Your task to perform on an android device: toggle show notifications on the lock screen Image 0: 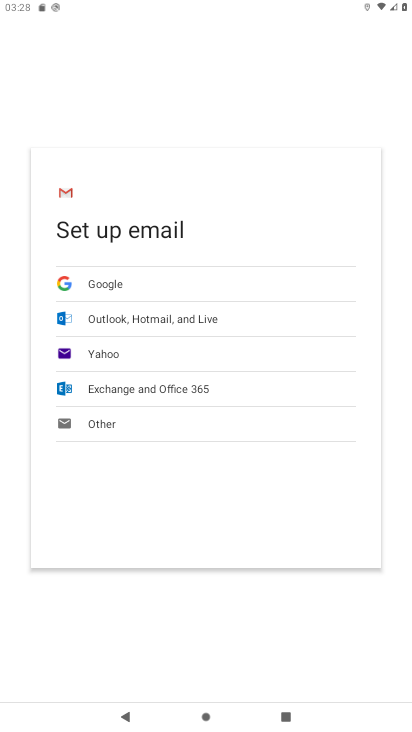
Step 0: press home button
Your task to perform on an android device: toggle show notifications on the lock screen Image 1: 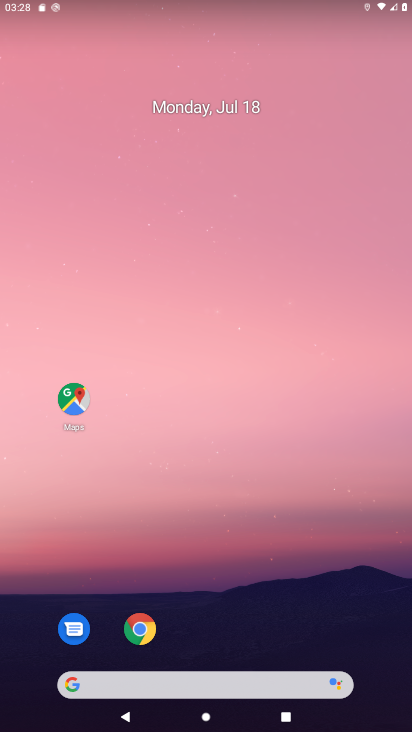
Step 1: drag from (361, 625) to (362, 86)
Your task to perform on an android device: toggle show notifications on the lock screen Image 2: 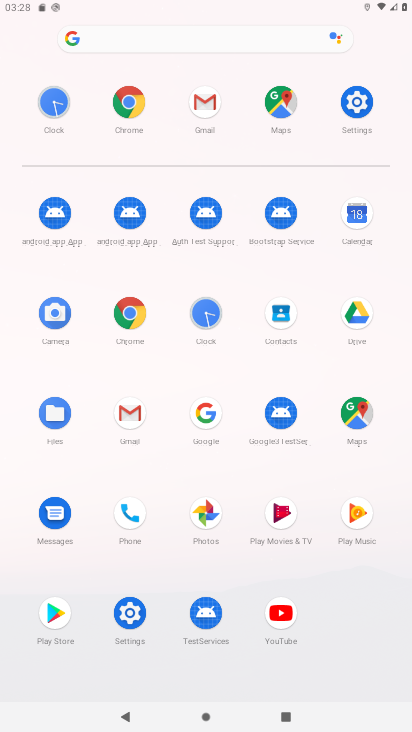
Step 2: click (365, 112)
Your task to perform on an android device: toggle show notifications on the lock screen Image 3: 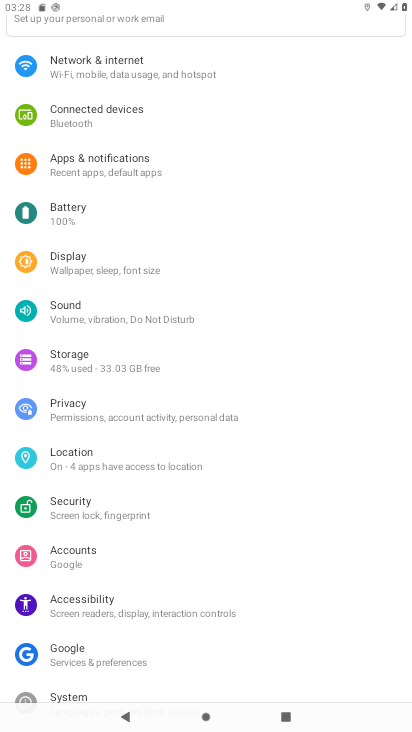
Step 3: drag from (337, 269) to (325, 352)
Your task to perform on an android device: toggle show notifications on the lock screen Image 4: 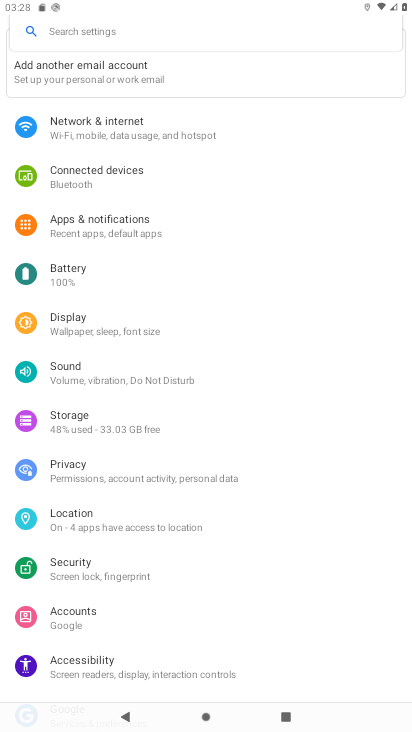
Step 4: drag from (310, 192) to (316, 278)
Your task to perform on an android device: toggle show notifications on the lock screen Image 5: 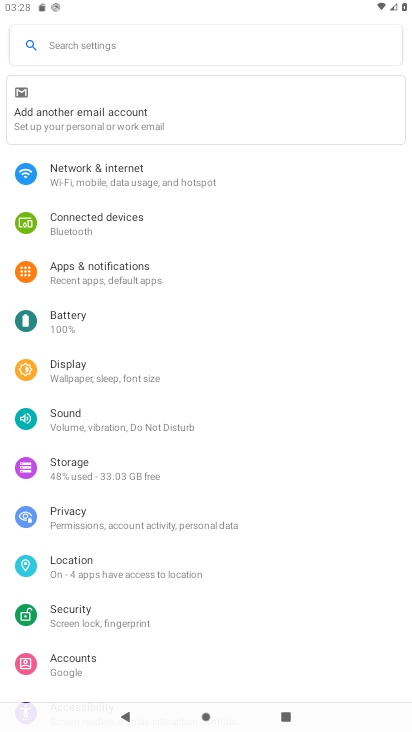
Step 5: click (218, 283)
Your task to perform on an android device: toggle show notifications on the lock screen Image 6: 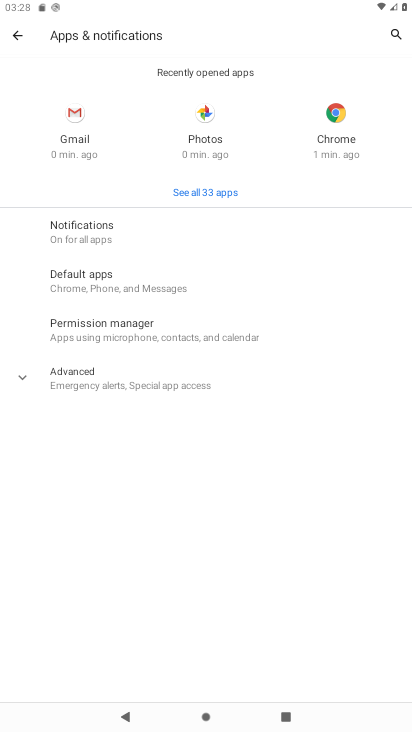
Step 6: click (151, 233)
Your task to perform on an android device: toggle show notifications on the lock screen Image 7: 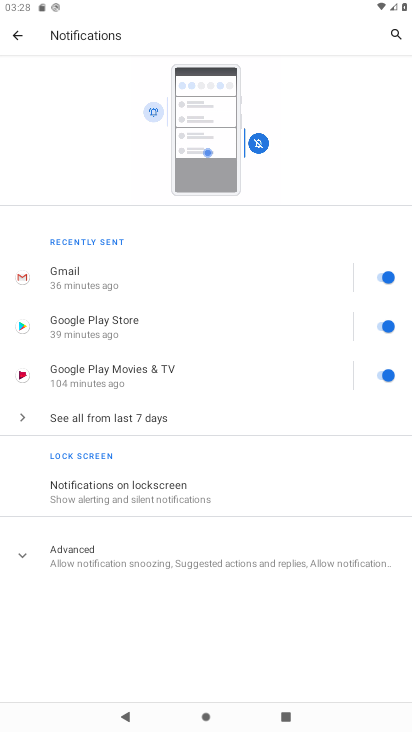
Step 7: drag from (257, 400) to (258, 315)
Your task to perform on an android device: toggle show notifications on the lock screen Image 8: 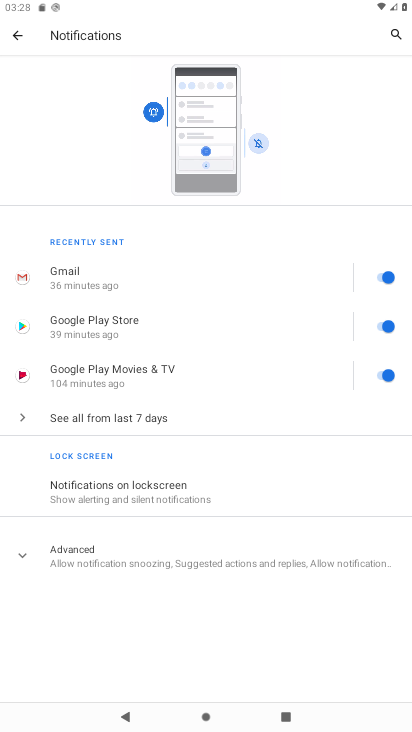
Step 8: click (255, 491)
Your task to perform on an android device: toggle show notifications on the lock screen Image 9: 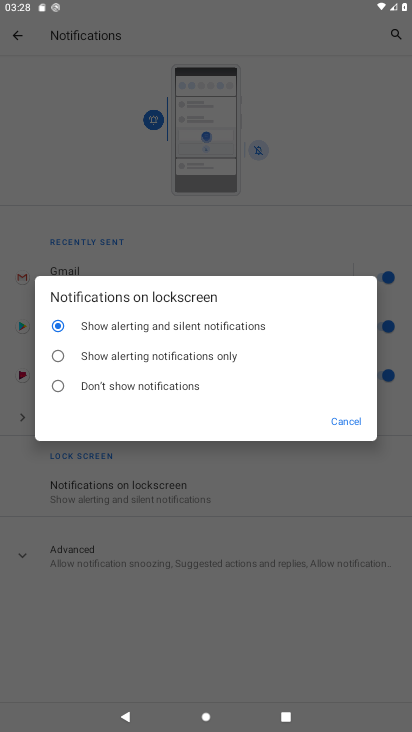
Step 9: click (93, 352)
Your task to perform on an android device: toggle show notifications on the lock screen Image 10: 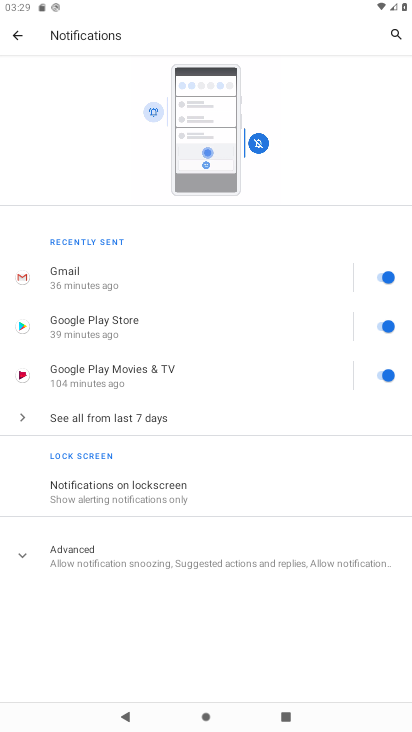
Step 10: task complete